Your task to perform on an android device: toggle airplane mode Image 0: 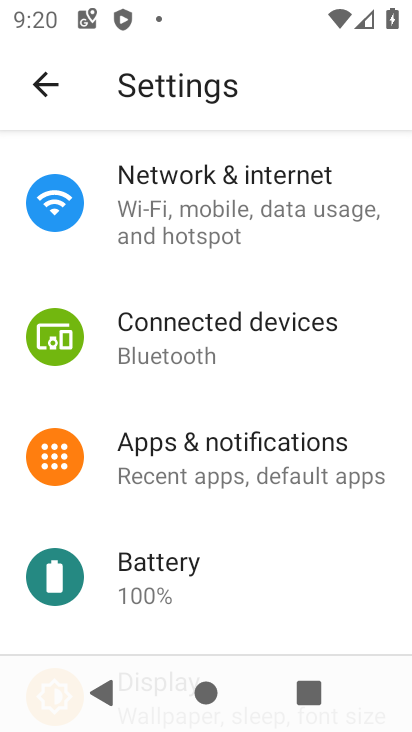
Step 0: press home button
Your task to perform on an android device: toggle airplane mode Image 1: 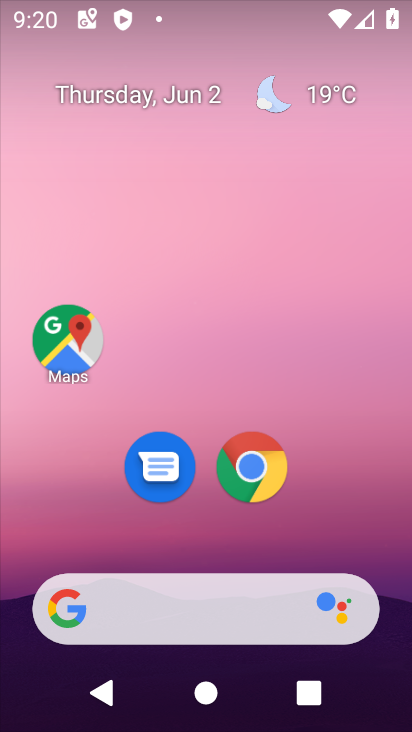
Step 1: drag from (225, 542) to (200, 166)
Your task to perform on an android device: toggle airplane mode Image 2: 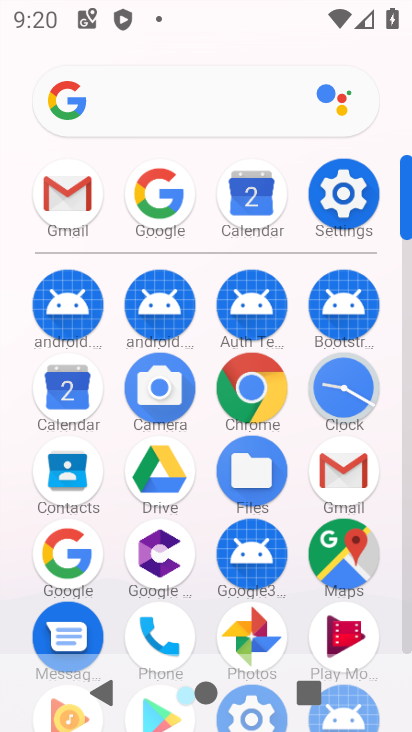
Step 2: click (331, 199)
Your task to perform on an android device: toggle airplane mode Image 3: 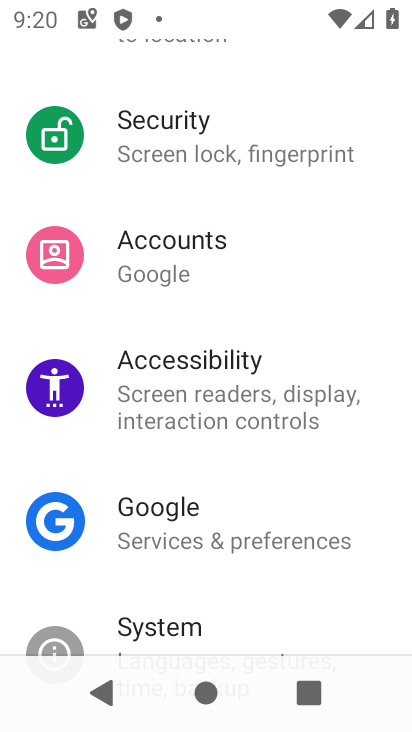
Step 3: drag from (222, 198) to (195, 578)
Your task to perform on an android device: toggle airplane mode Image 4: 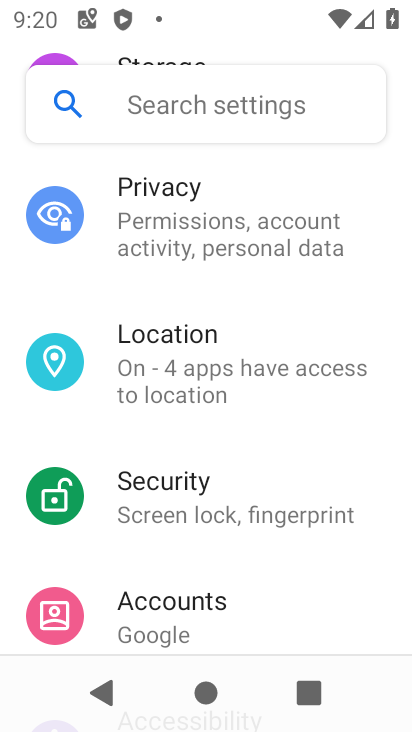
Step 4: drag from (206, 367) to (206, 641)
Your task to perform on an android device: toggle airplane mode Image 5: 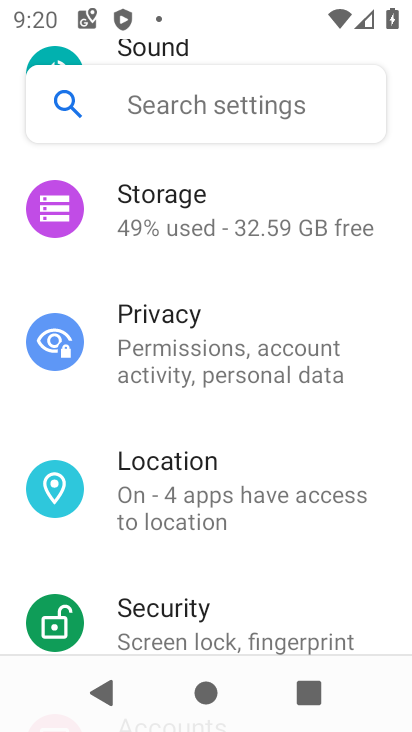
Step 5: drag from (244, 317) to (244, 638)
Your task to perform on an android device: toggle airplane mode Image 6: 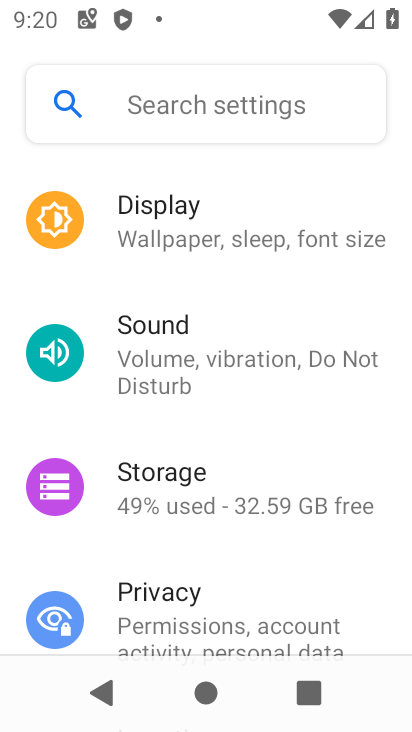
Step 6: drag from (249, 323) to (243, 665)
Your task to perform on an android device: toggle airplane mode Image 7: 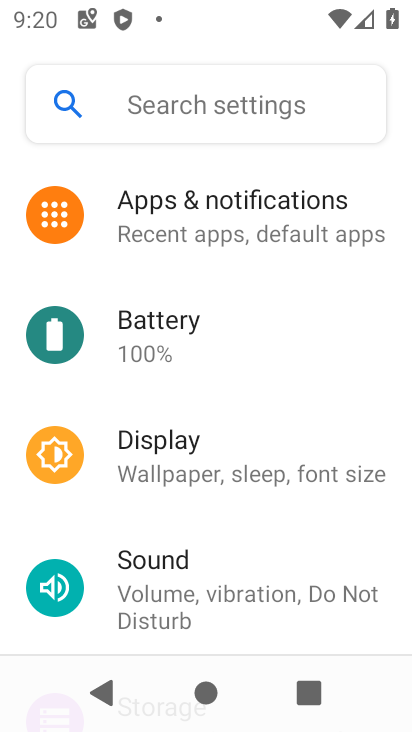
Step 7: drag from (213, 278) to (193, 588)
Your task to perform on an android device: toggle airplane mode Image 8: 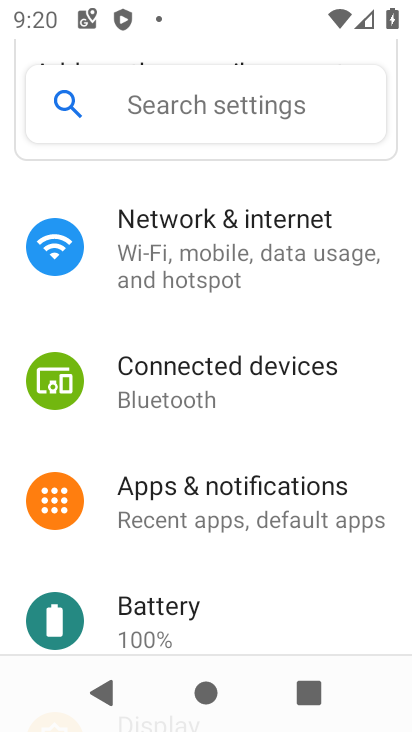
Step 8: click (192, 266)
Your task to perform on an android device: toggle airplane mode Image 9: 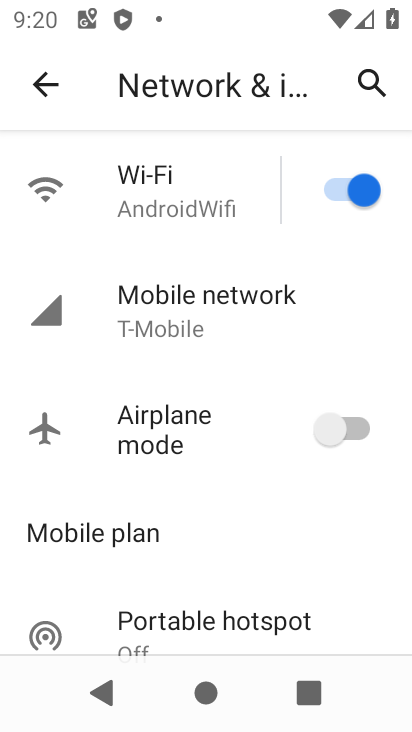
Step 9: click (367, 430)
Your task to perform on an android device: toggle airplane mode Image 10: 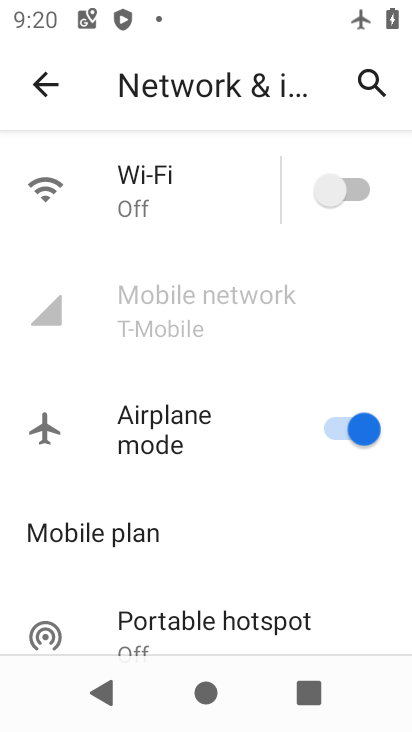
Step 10: task complete